Your task to perform on an android device: See recent photos Image 0: 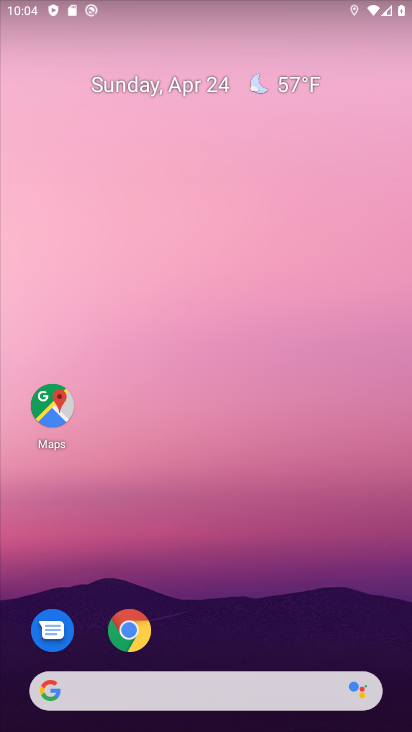
Step 0: drag from (199, 480) to (252, 32)
Your task to perform on an android device: See recent photos Image 1: 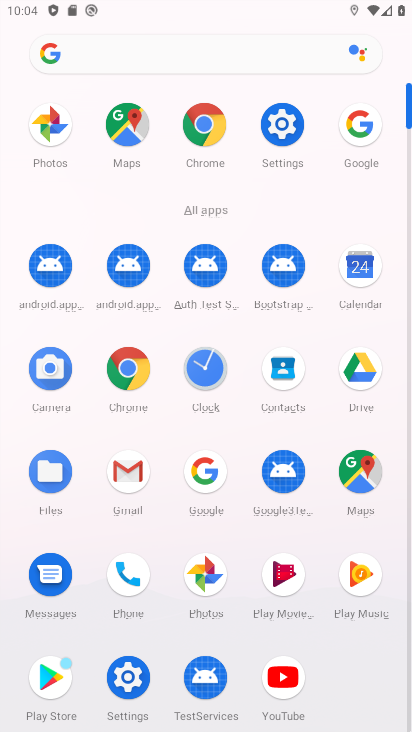
Step 1: click (206, 575)
Your task to perform on an android device: See recent photos Image 2: 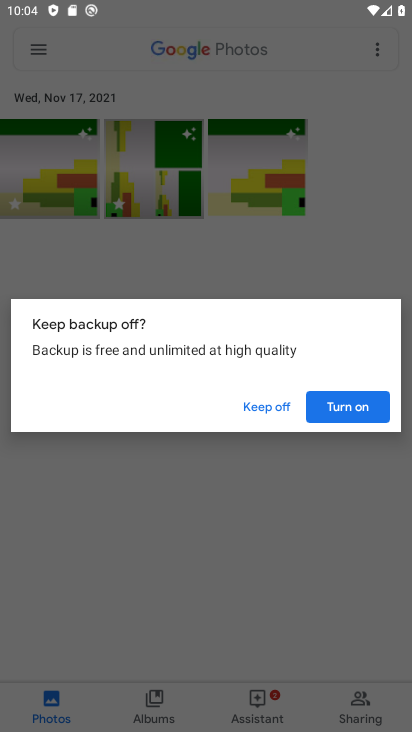
Step 2: click (288, 409)
Your task to perform on an android device: See recent photos Image 3: 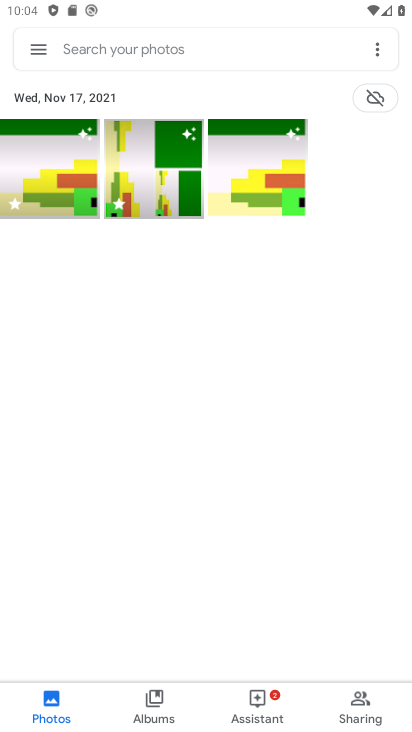
Step 3: click (53, 178)
Your task to perform on an android device: See recent photos Image 4: 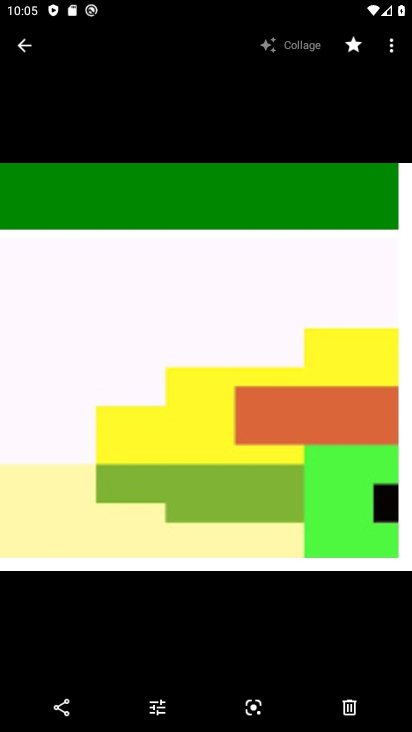
Step 4: task complete